Your task to perform on an android device: uninstall "DuckDuckGo Privacy Browser" Image 0: 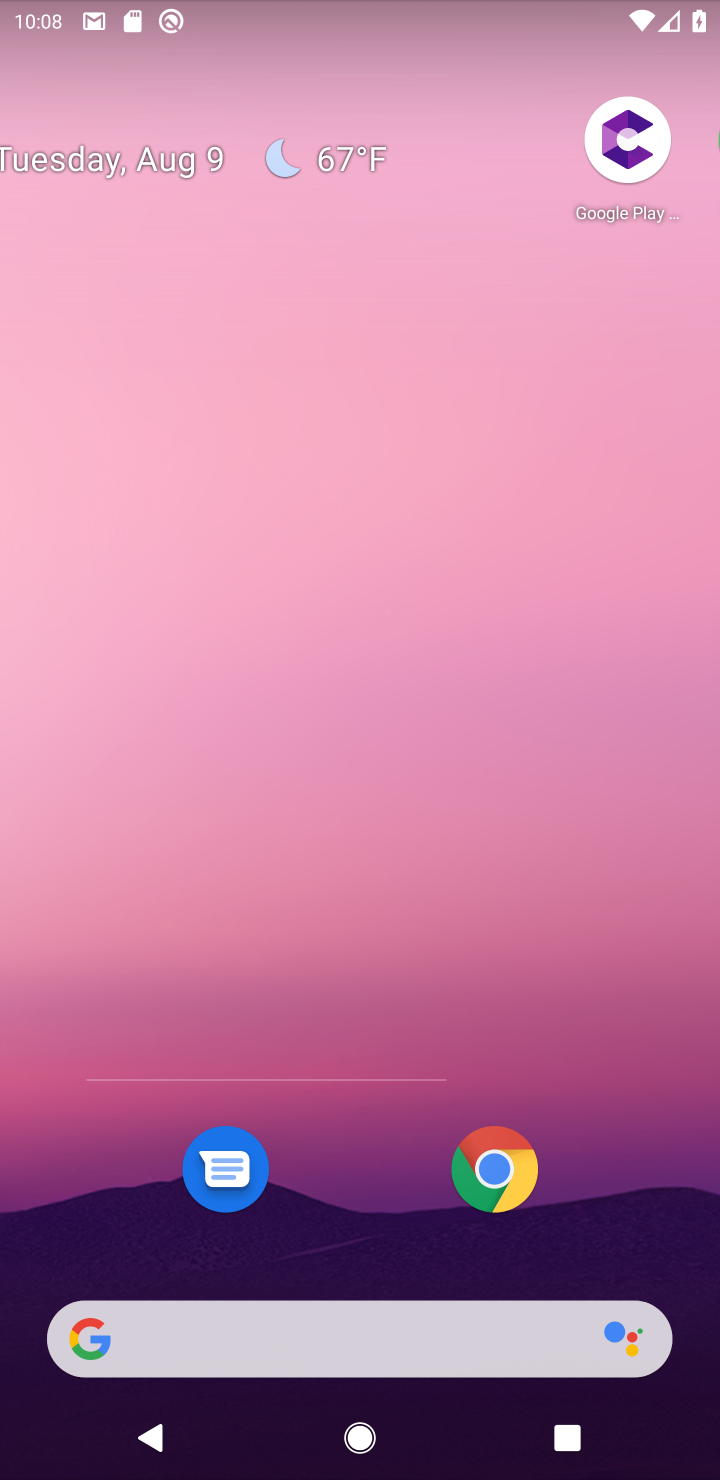
Step 0: press home button
Your task to perform on an android device: uninstall "DuckDuckGo Privacy Browser" Image 1: 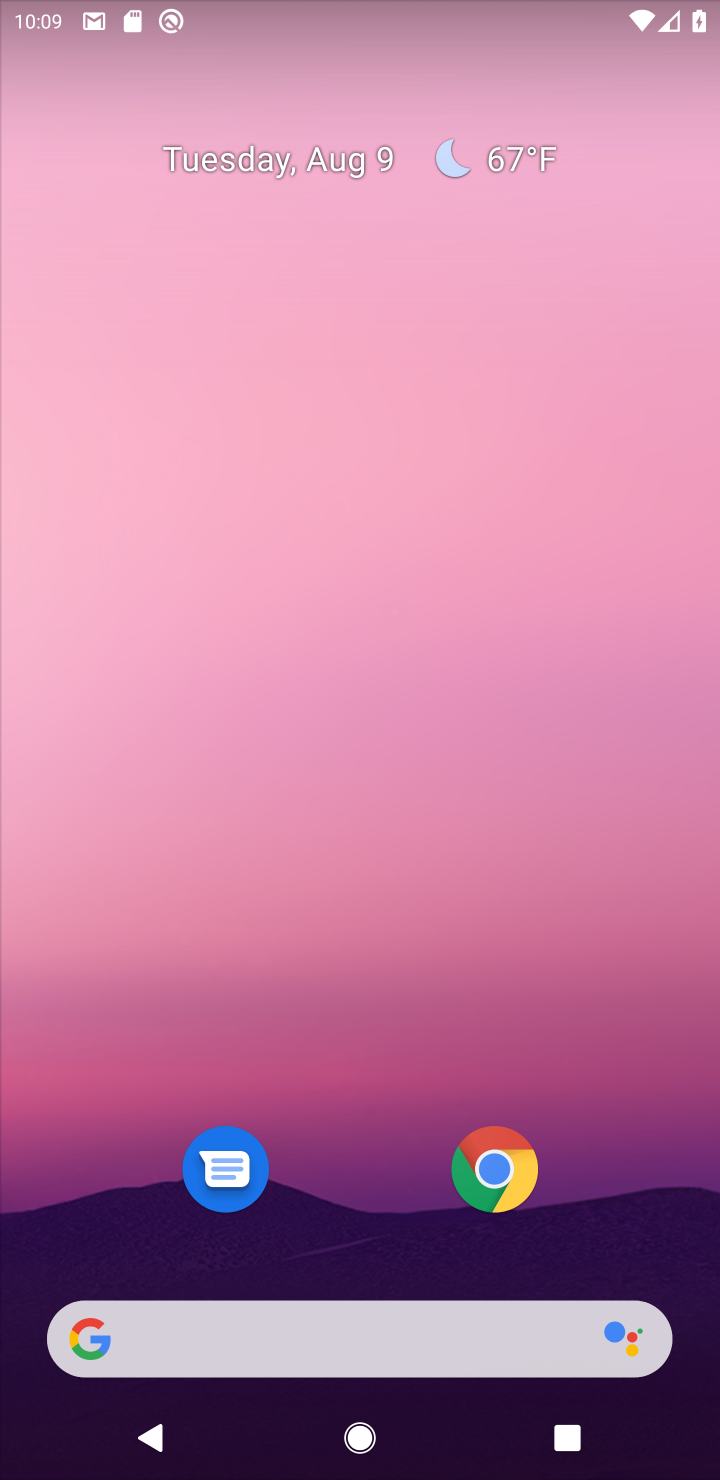
Step 1: drag from (603, 1048) to (668, 151)
Your task to perform on an android device: uninstall "DuckDuckGo Privacy Browser" Image 2: 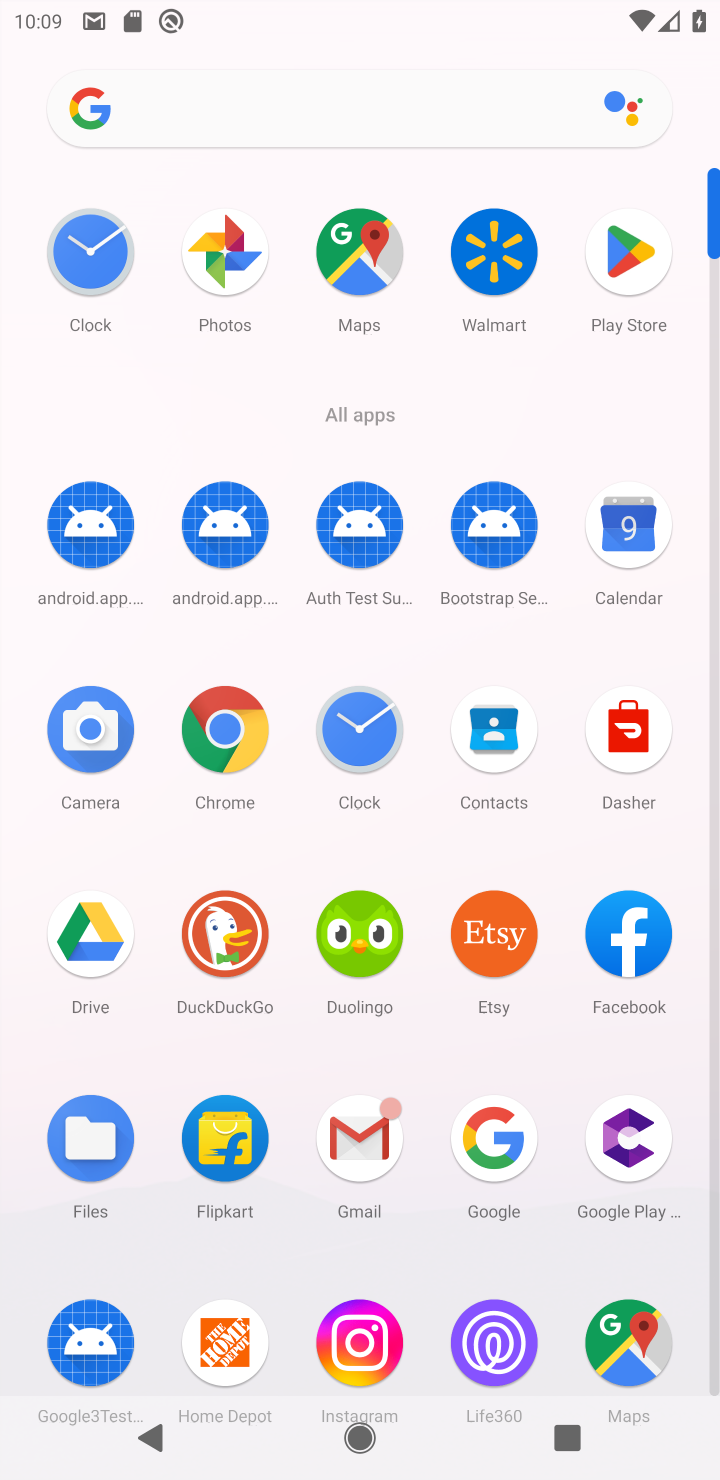
Step 2: click (622, 241)
Your task to perform on an android device: uninstall "DuckDuckGo Privacy Browser" Image 3: 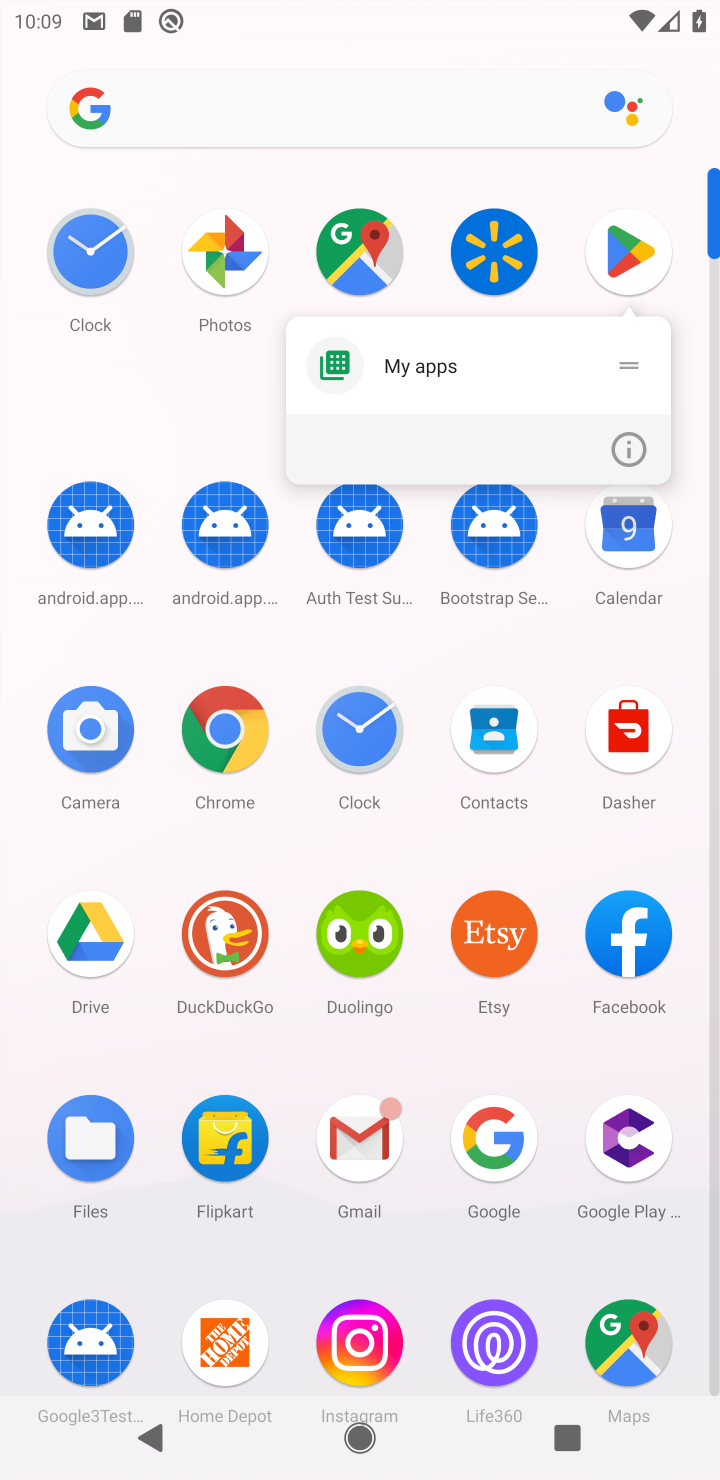
Step 3: click (634, 260)
Your task to perform on an android device: uninstall "DuckDuckGo Privacy Browser" Image 4: 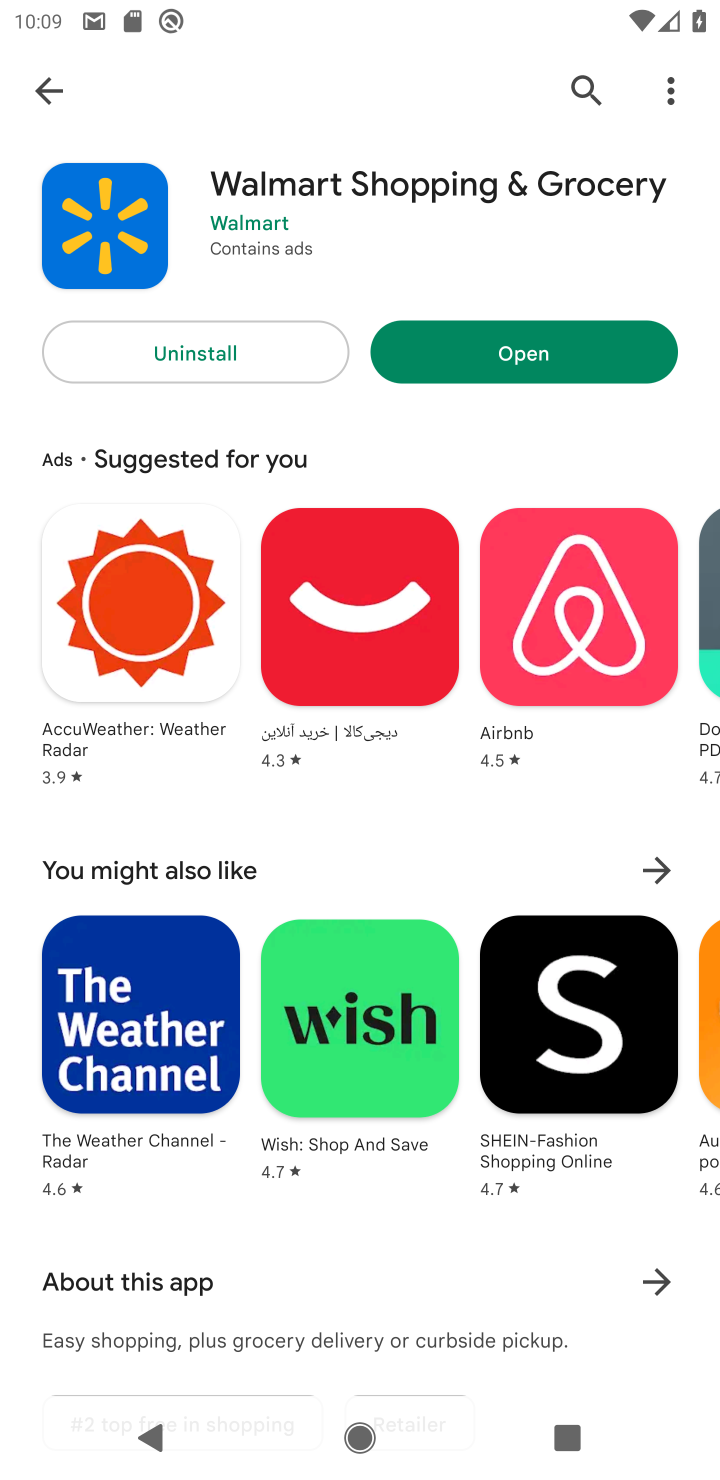
Step 4: click (580, 86)
Your task to perform on an android device: uninstall "DuckDuckGo Privacy Browser" Image 5: 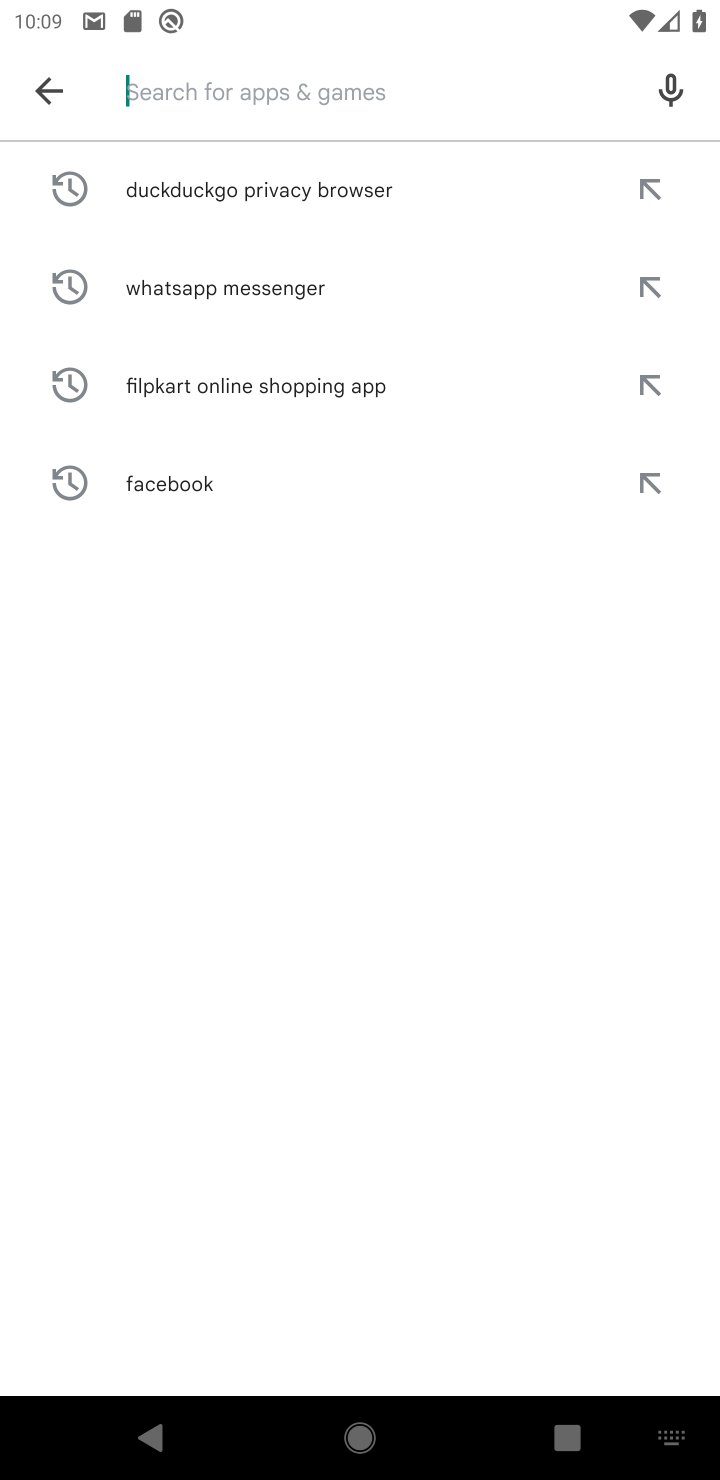
Step 5: type "DuckDuckGo Privacy Browser"
Your task to perform on an android device: uninstall "DuckDuckGo Privacy Browser" Image 6: 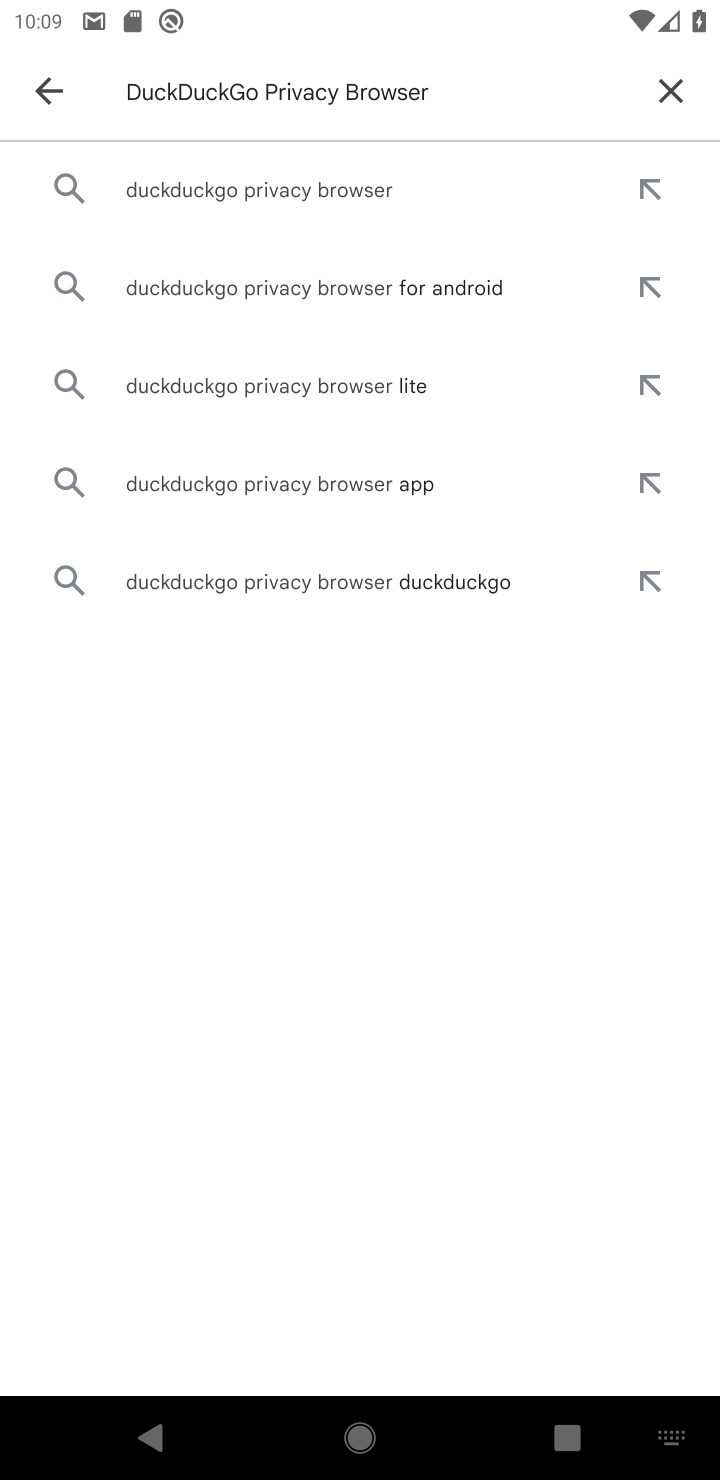
Step 6: click (317, 184)
Your task to perform on an android device: uninstall "DuckDuckGo Privacy Browser" Image 7: 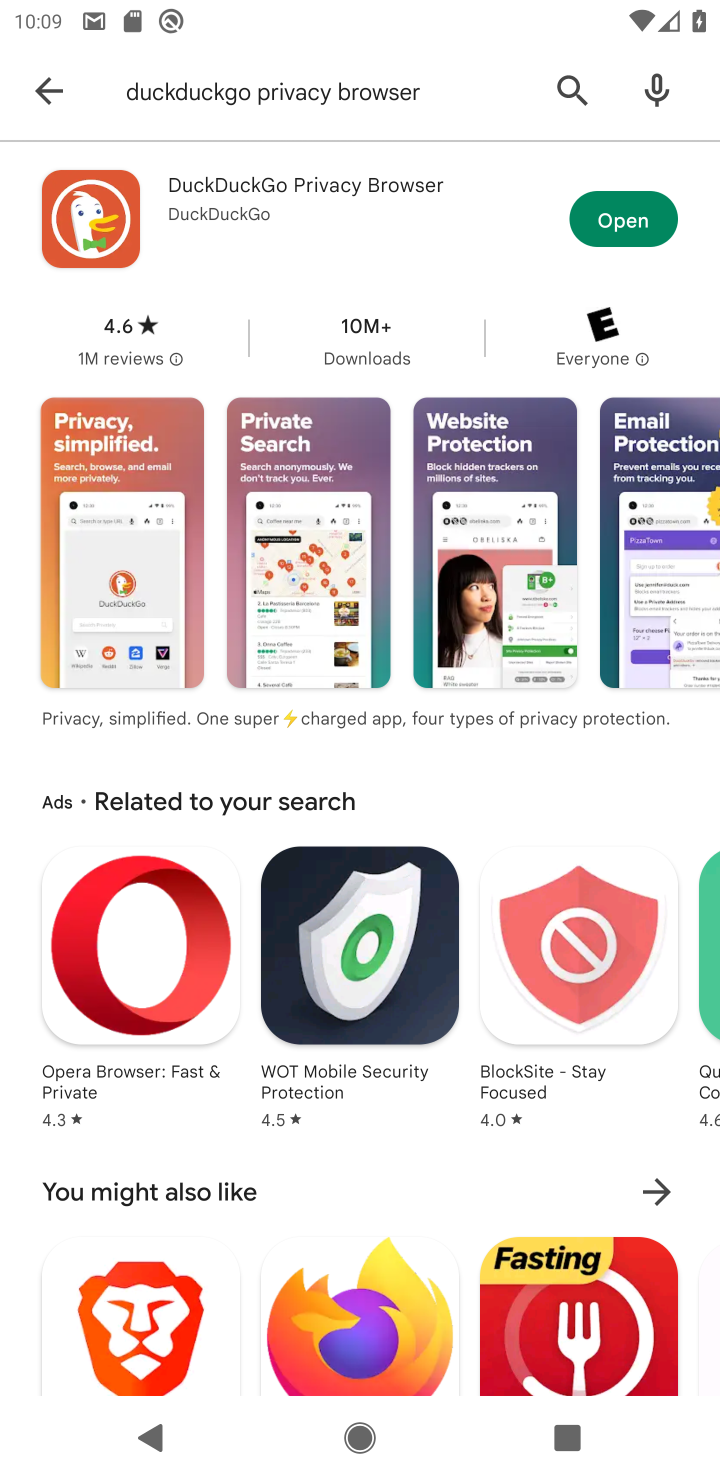
Step 7: task complete